Your task to perform on an android device: Is it going to rain this weekend? Image 0: 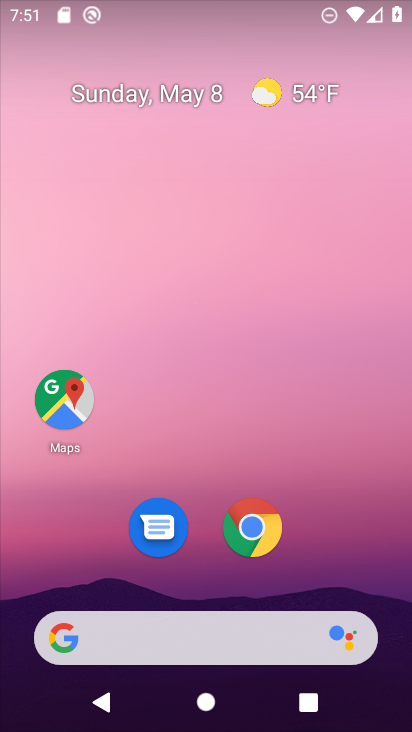
Step 0: drag from (382, 586) to (339, 558)
Your task to perform on an android device: Is it going to rain this weekend? Image 1: 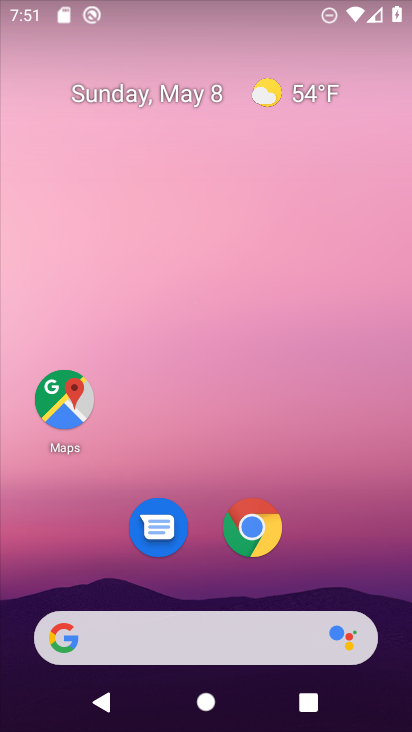
Step 1: click (322, 90)
Your task to perform on an android device: Is it going to rain this weekend? Image 2: 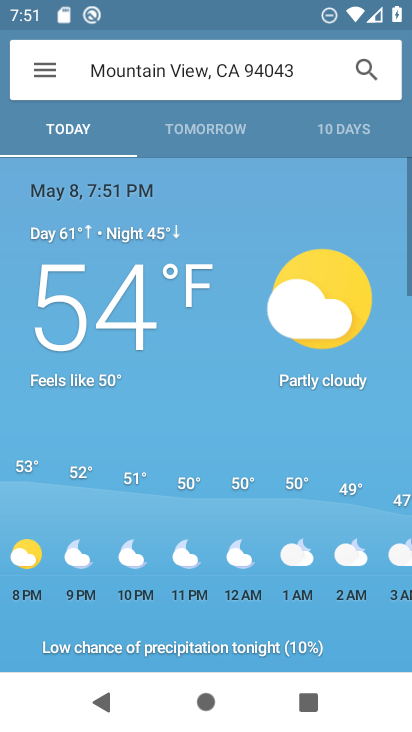
Step 2: click (336, 124)
Your task to perform on an android device: Is it going to rain this weekend? Image 3: 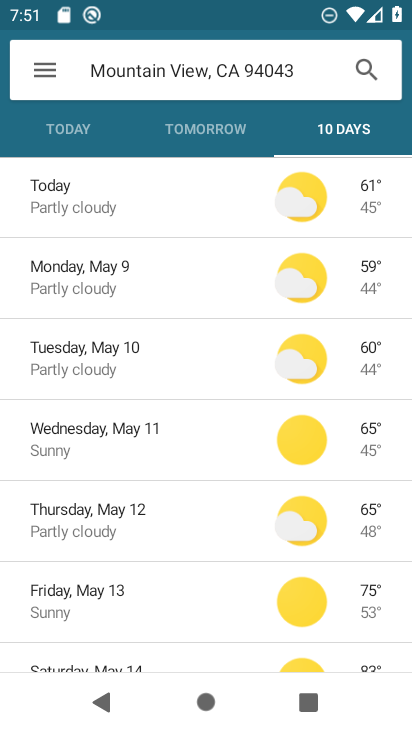
Step 3: task complete